Your task to perform on an android device: add a contact Image 0: 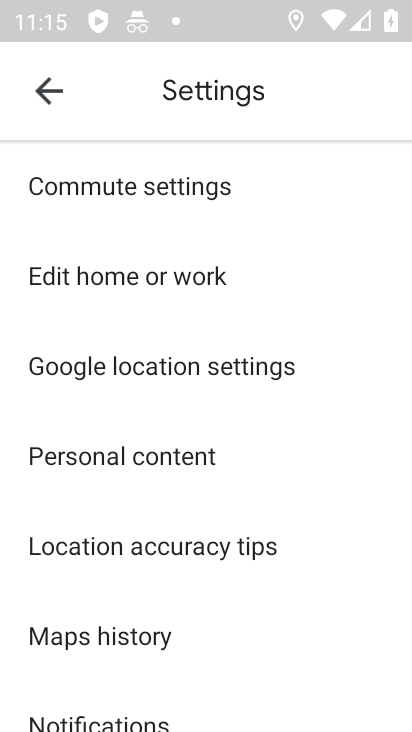
Step 0: press home button
Your task to perform on an android device: add a contact Image 1: 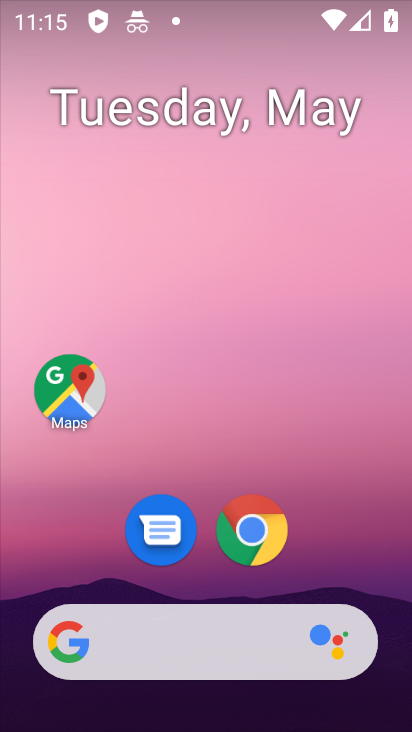
Step 1: drag from (333, 488) to (318, 162)
Your task to perform on an android device: add a contact Image 2: 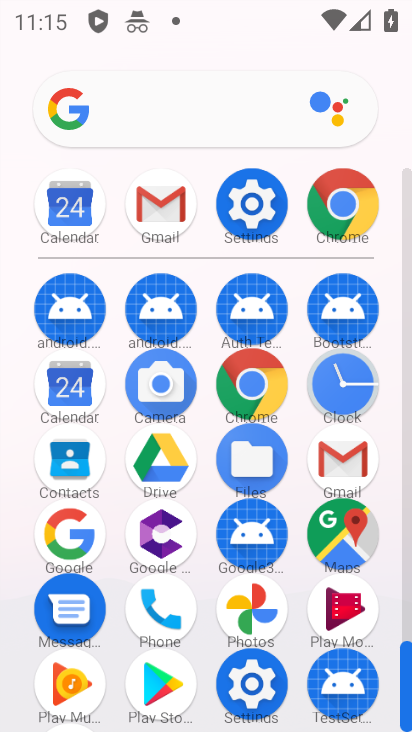
Step 2: click (90, 467)
Your task to perform on an android device: add a contact Image 3: 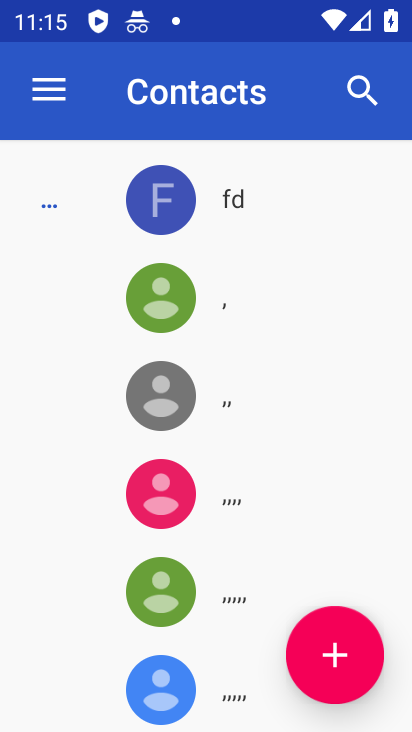
Step 3: click (359, 663)
Your task to perform on an android device: add a contact Image 4: 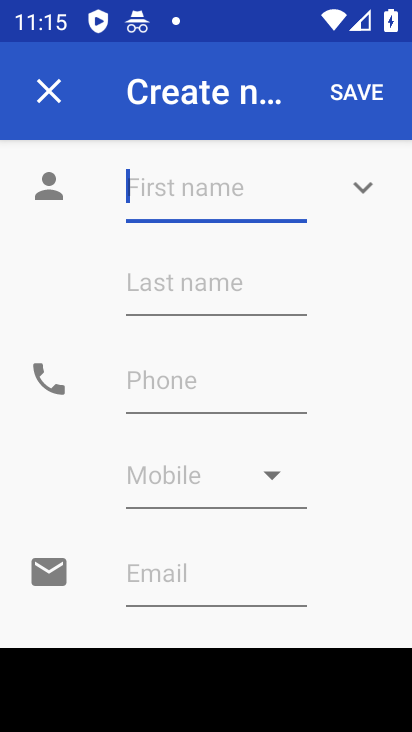
Step 4: type "galoxy"
Your task to perform on an android device: add a contact Image 5: 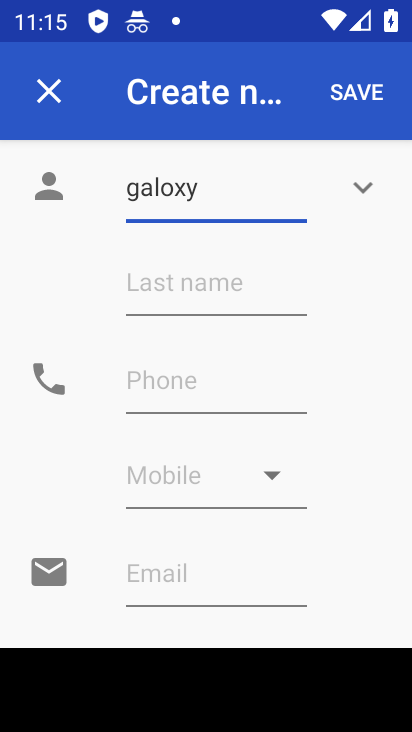
Step 5: click (362, 92)
Your task to perform on an android device: add a contact Image 6: 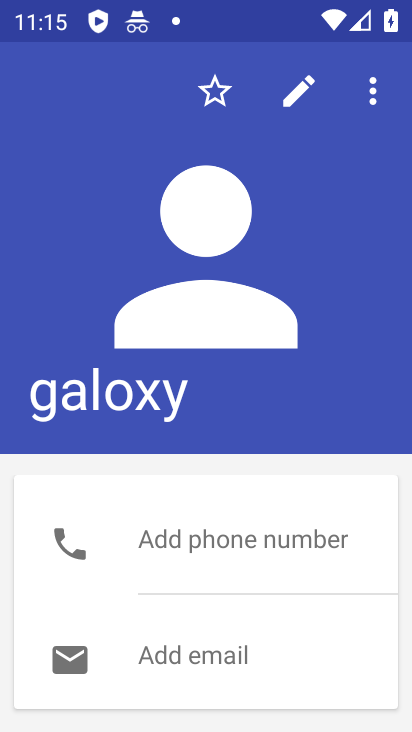
Step 6: task complete